Your task to perform on an android device: turn off translation in the chrome app Image 0: 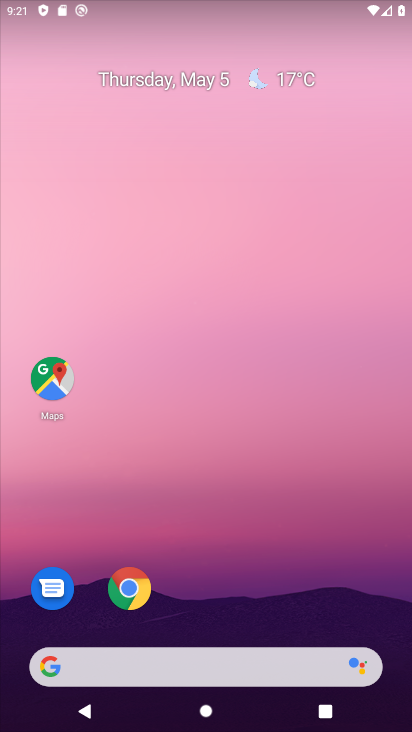
Step 0: drag from (247, 549) to (268, 257)
Your task to perform on an android device: turn off translation in the chrome app Image 1: 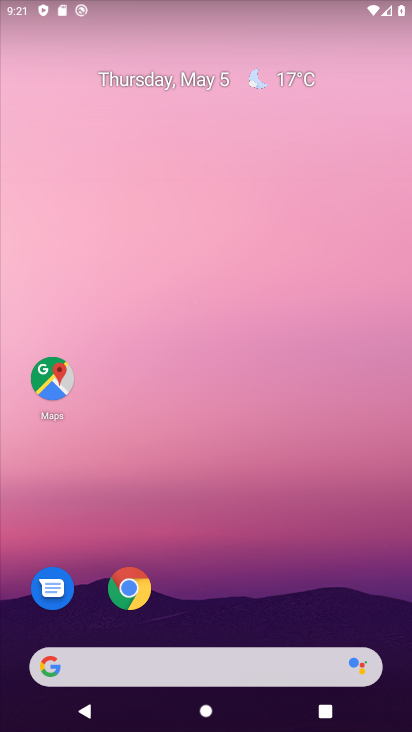
Step 1: drag from (236, 610) to (247, 250)
Your task to perform on an android device: turn off translation in the chrome app Image 2: 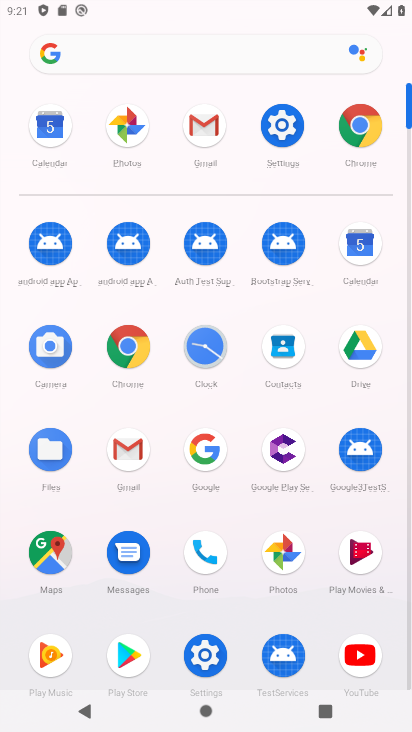
Step 2: click (277, 131)
Your task to perform on an android device: turn off translation in the chrome app Image 3: 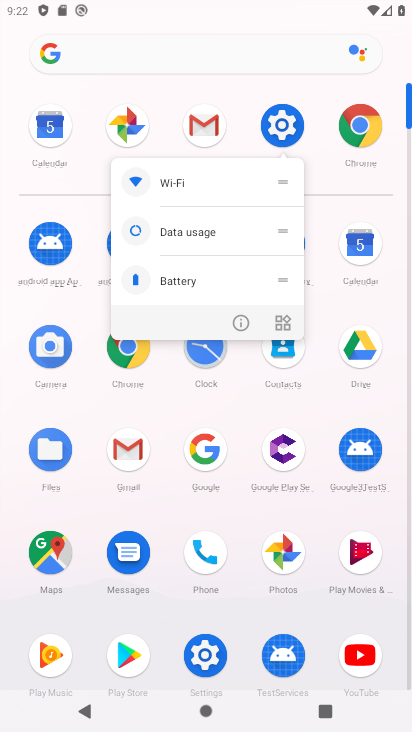
Step 3: click (125, 351)
Your task to perform on an android device: turn off translation in the chrome app Image 4: 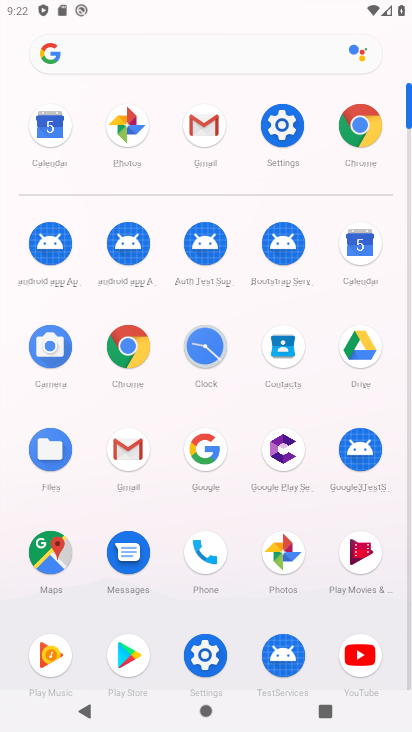
Step 4: click (125, 351)
Your task to perform on an android device: turn off translation in the chrome app Image 5: 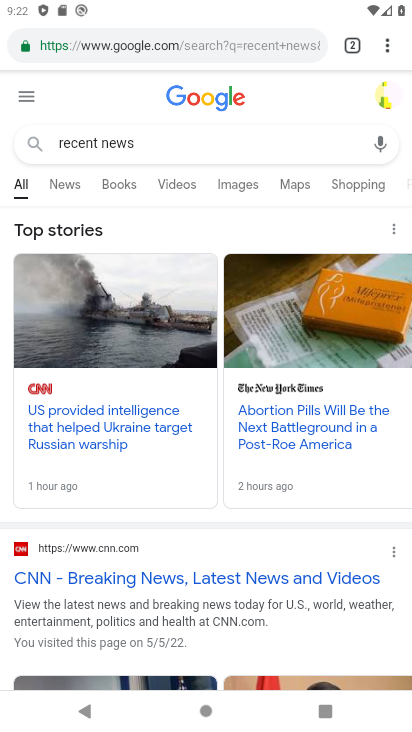
Step 5: click (387, 45)
Your task to perform on an android device: turn off translation in the chrome app Image 6: 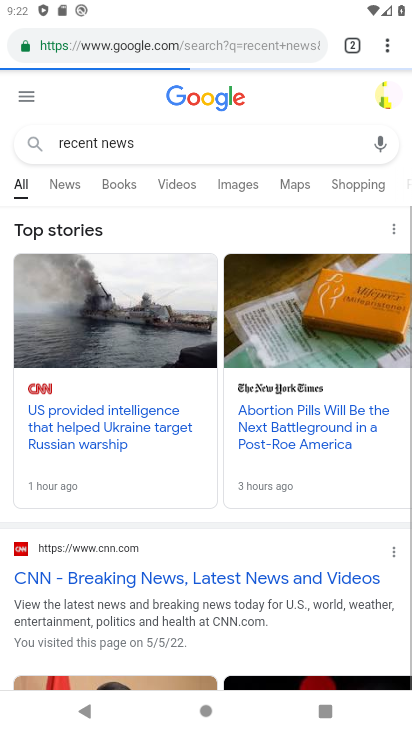
Step 6: click (387, 45)
Your task to perform on an android device: turn off translation in the chrome app Image 7: 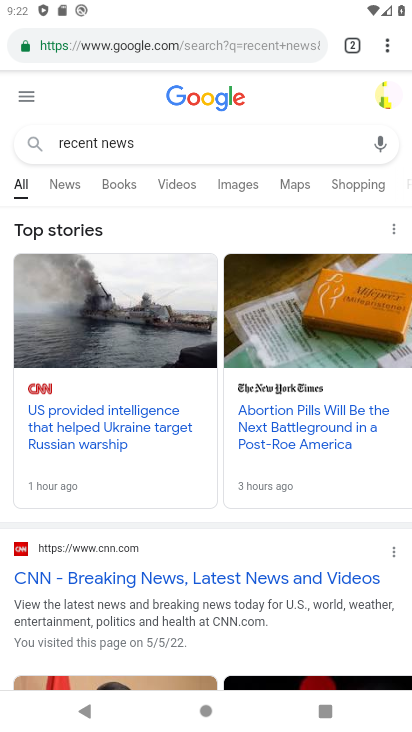
Step 7: click (372, 48)
Your task to perform on an android device: turn off translation in the chrome app Image 8: 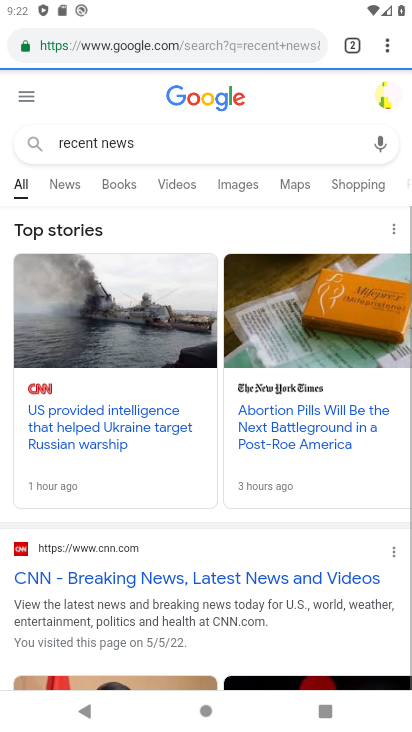
Step 8: click (372, 47)
Your task to perform on an android device: turn off translation in the chrome app Image 9: 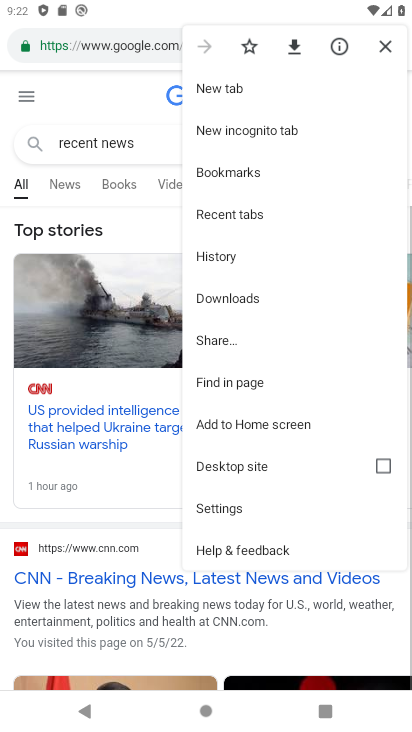
Step 9: click (234, 510)
Your task to perform on an android device: turn off translation in the chrome app Image 10: 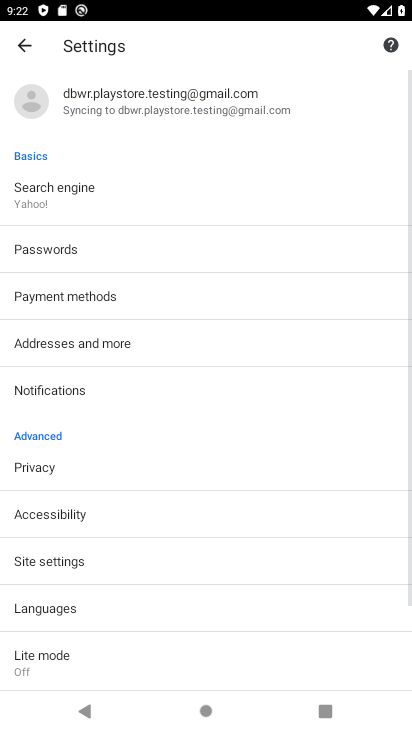
Step 10: click (104, 603)
Your task to perform on an android device: turn off translation in the chrome app Image 11: 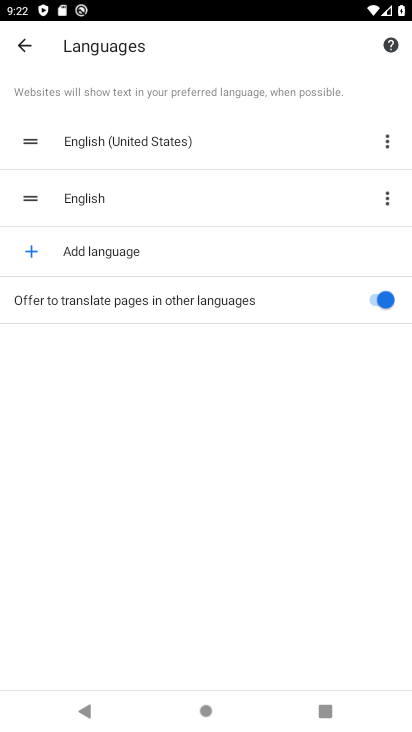
Step 11: click (369, 298)
Your task to perform on an android device: turn off translation in the chrome app Image 12: 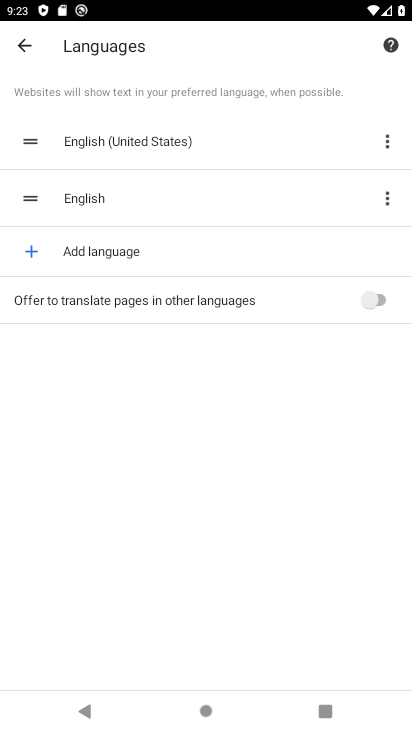
Step 12: task complete